Your task to perform on an android device: turn on improve location accuracy Image 0: 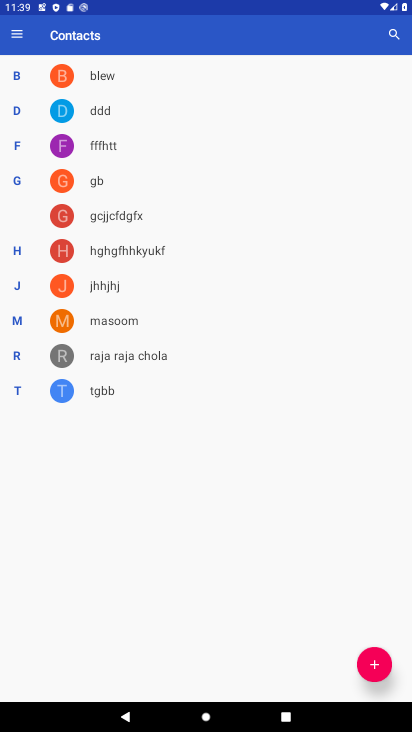
Step 0: press home button
Your task to perform on an android device: turn on improve location accuracy Image 1: 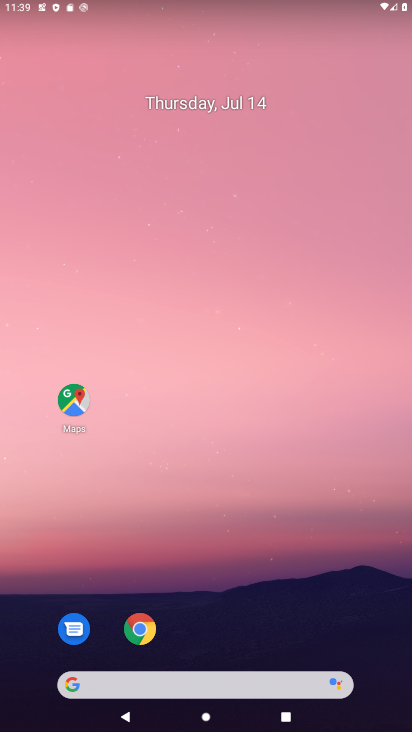
Step 1: drag from (296, 626) to (352, 1)
Your task to perform on an android device: turn on improve location accuracy Image 2: 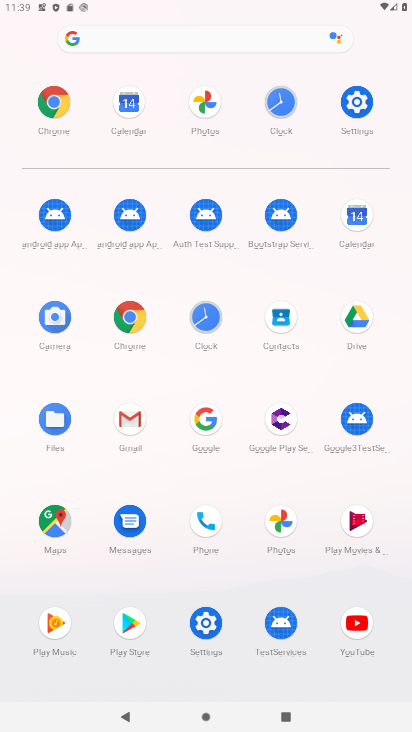
Step 2: click (369, 102)
Your task to perform on an android device: turn on improve location accuracy Image 3: 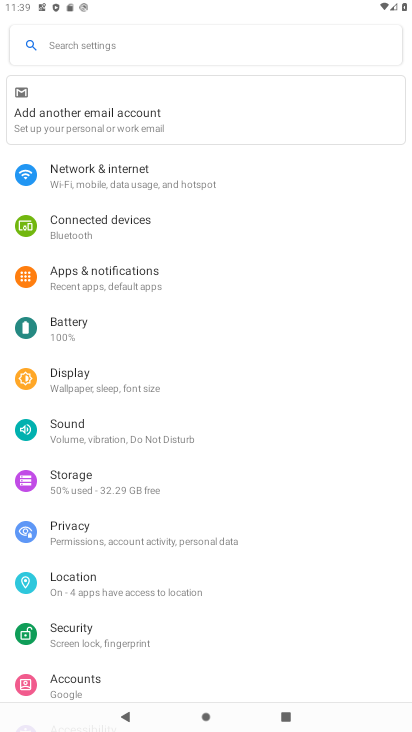
Step 3: click (127, 595)
Your task to perform on an android device: turn on improve location accuracy Image 4: 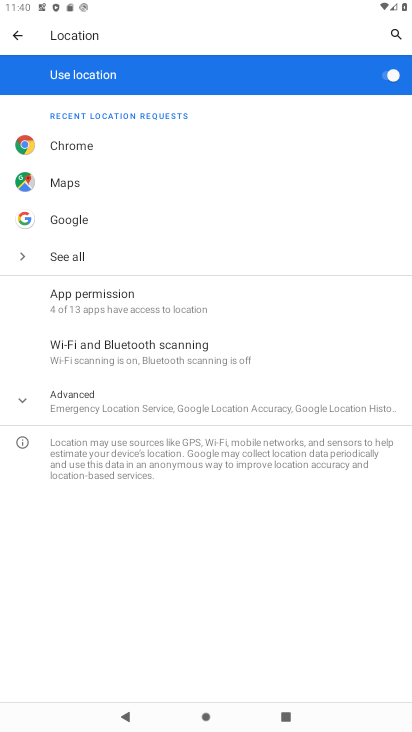
Step 4: click (34, 400)
Your task to perform on an android device: turn on improve location accuracy Image 5: 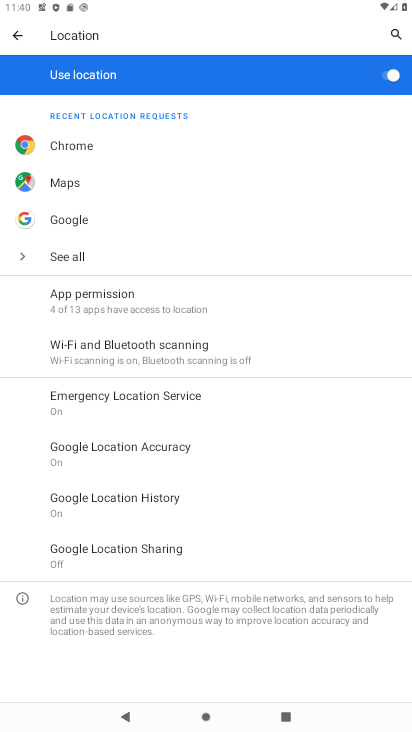
Step 5: task complete